Your task to perform on an android device: create a new album in the google photos Image 0: 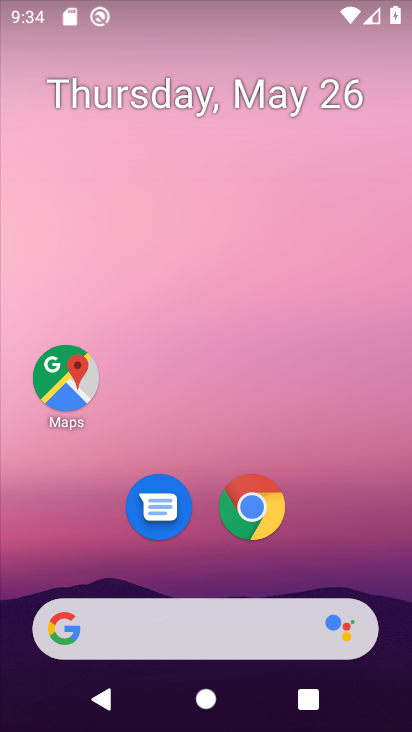
Step 0: drag from (371, 575) to (369, 166)
Your task to perform on an android device: create a new album in the google photos Image 1: 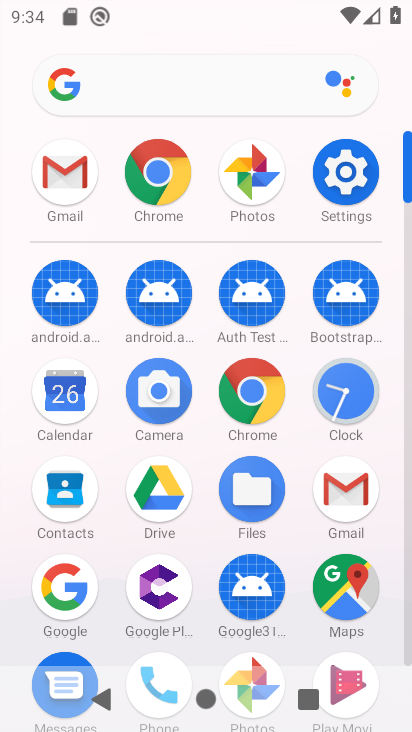
Step 1: drag from (296, 562) to (296, 300)
Your task to perform on an android device: create a new album in the google photos Image 2: 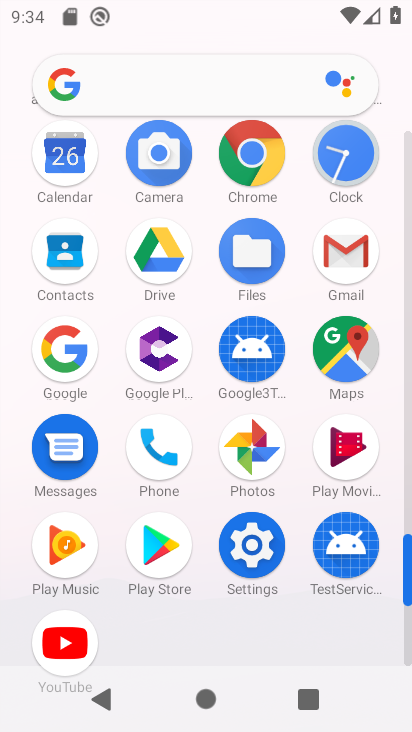
Step 2: click (246, 449)
Your task to perform on an android device: create a new album in the google photos Image 3: 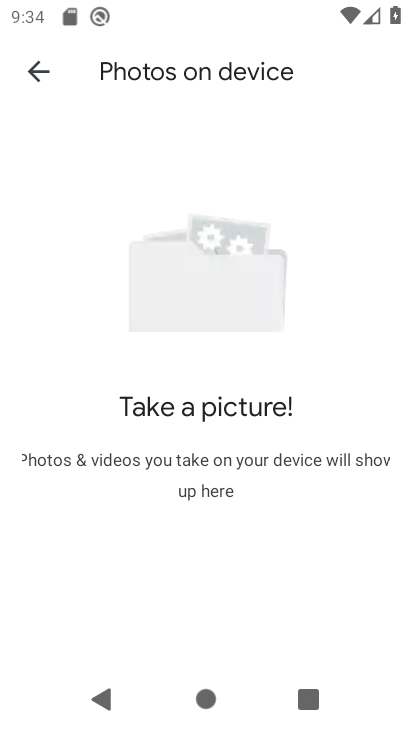
Step 3: click (44, 79)
Your task to perform on an android device: create a new album in the google photos Image 4: 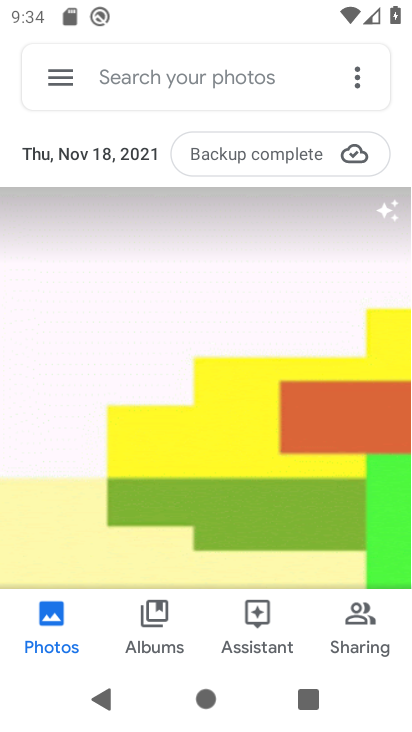
Step 4: click (359, 81)
Your task to perform on an android device: create a new album in the google photos Image 5: 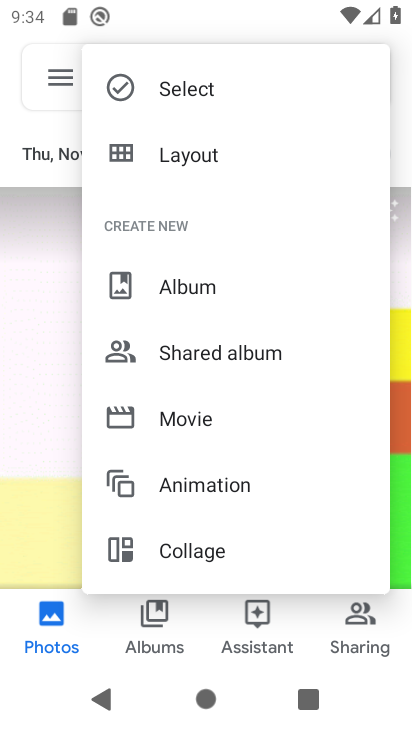
Step 5: click (222, 287)
Your task to perform on an android device: create a new album in the google photos Image 6: 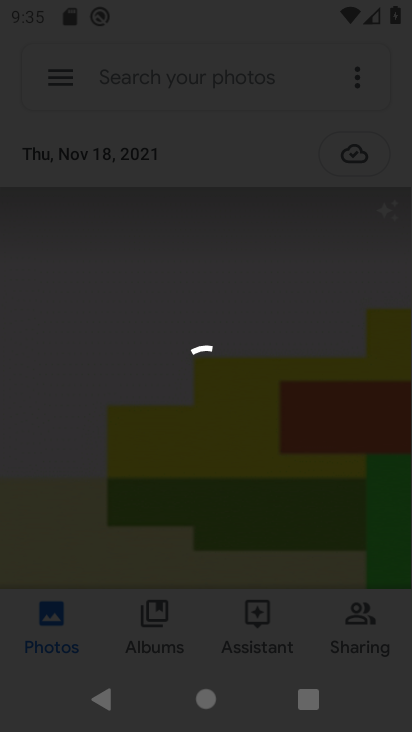
Step 6: task complete